Your task to perform on an android device: Open internet settings Image 0: 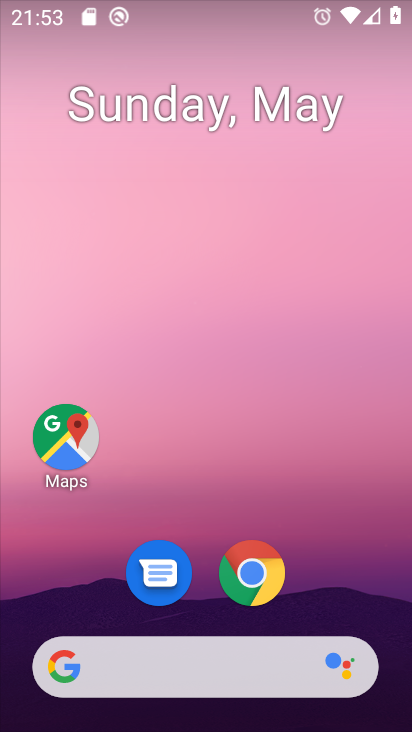
Step 0: drag from (205, 503) to (265, 1)
Your task to perform on an android device: Open internet settings Image 1: 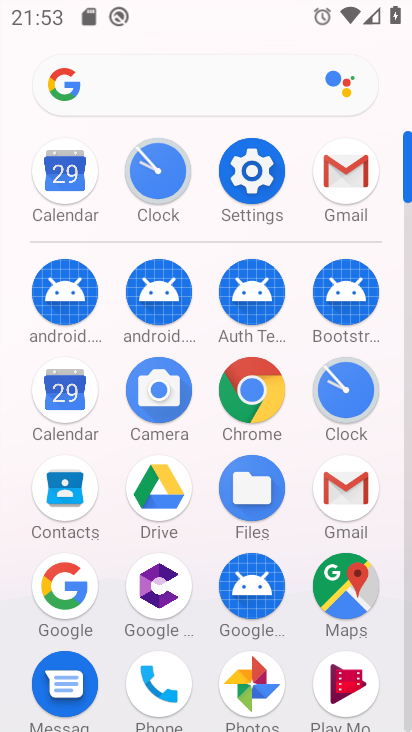
Step 1: click (266, 170)
Your task to perform on an android device: Open internet settings Image 2: 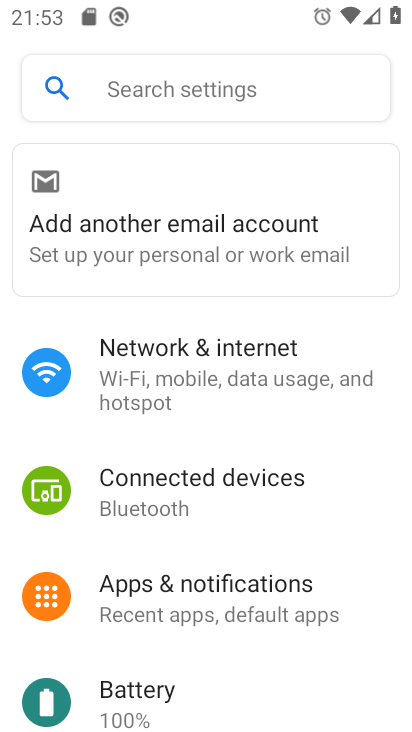
Step 2: click (238, 356)
Your task to perform on an android device: Open internet settings Image 3: 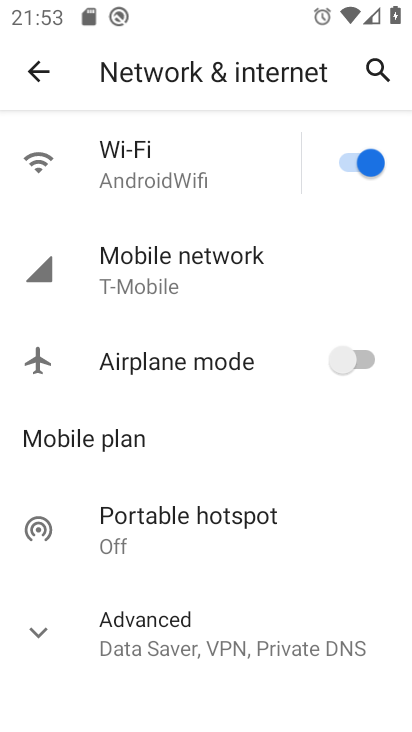
Step 3: task complete